Your task to perform on an android device: snooze an email in the gmail app Image 0: 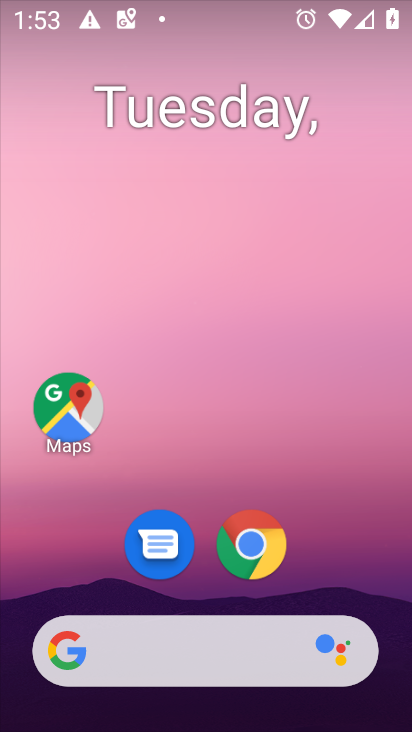
Step 0: drag from (331, 178) to (66, 29)
Your task to perform on an android device: snooze an email in the gmail app Image 1: 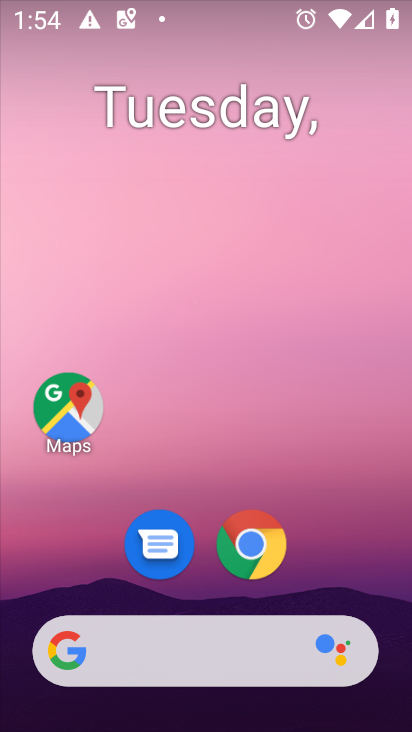
Step 1: drag from (205, 443) to (261, 1)
Your task to perform on an android device: snooze an email in the gmail app Image 2: 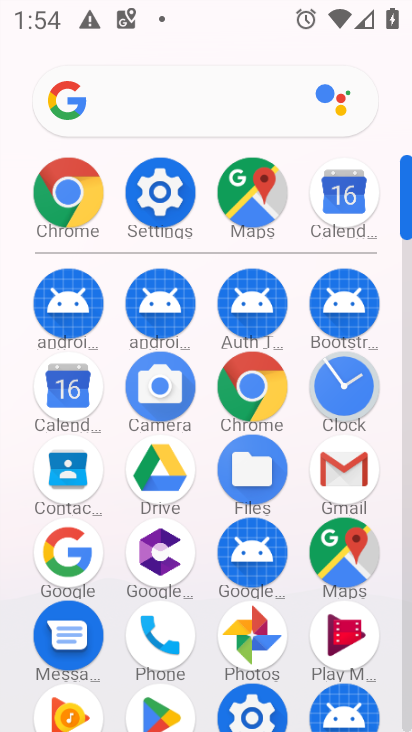
Step 2: click (356, 469)
Your task to perform on an android device: snooze an email in the gmail app Image 3: 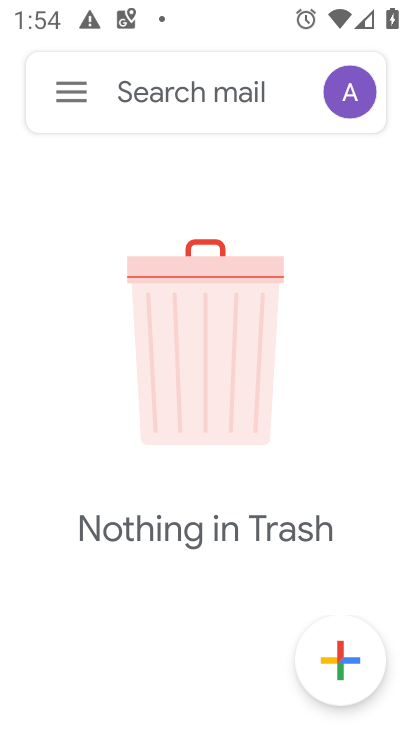
Step 3: click (51, 94)
Your task to perform on an android device: snooze an email in the gmail app Image 4: 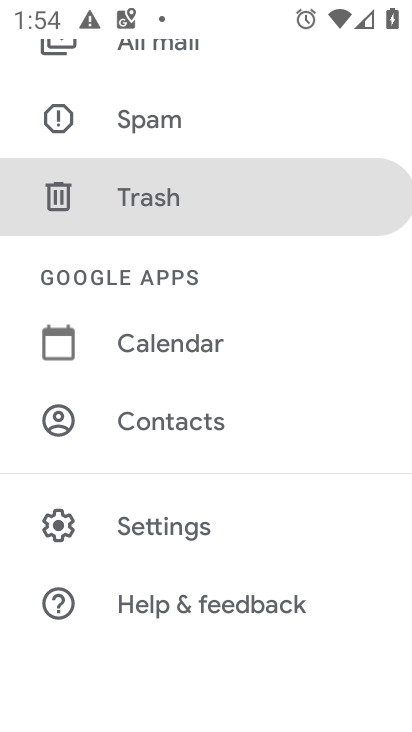
Step 4: drag from (177, 129) to (171, 504)
Your task to perform on an android device: snooze an email in the gmail app Image 5: 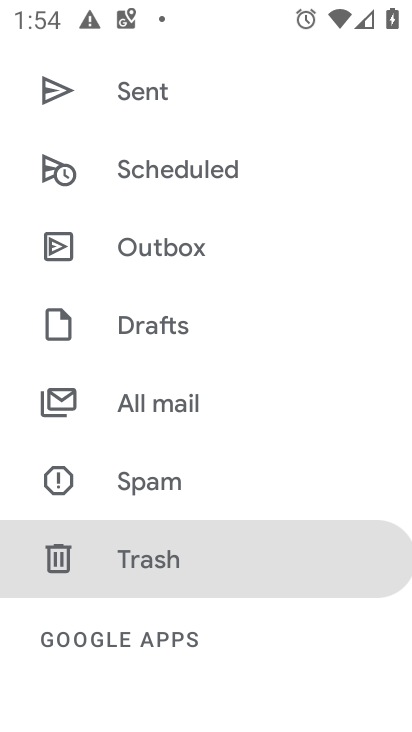
Step 5: click (173, 411)
Your task to perform on an android device: snooze an email in the gmail app Image 6: 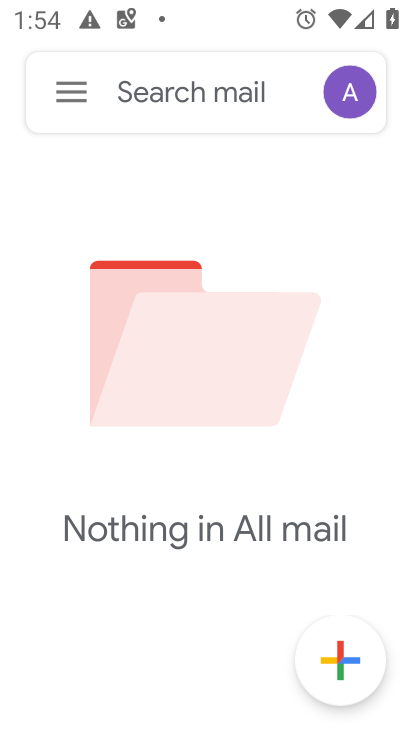
Step 6: task complete